Your task to perform on an android device: Go to Google maps Image 0: 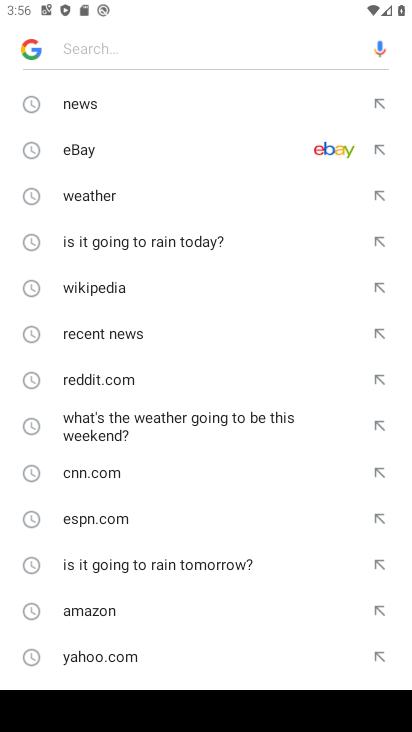
Step 0: press home button
Your task to perform on an android device: Go to Google maps Image 1: 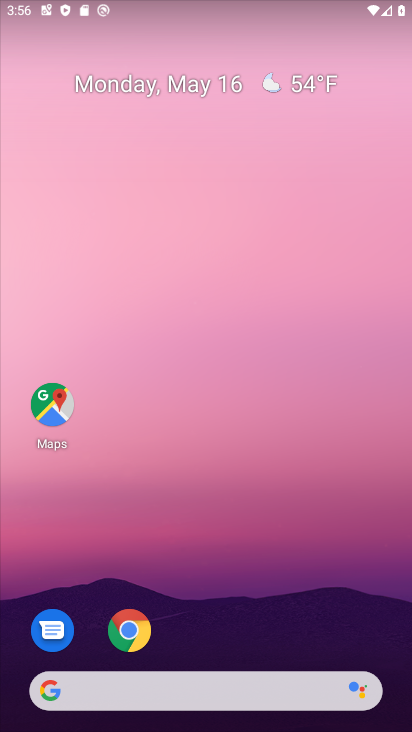
Step 1: click (49, 401)
Your task to perform on an android device: Go to Google maps Image 2: 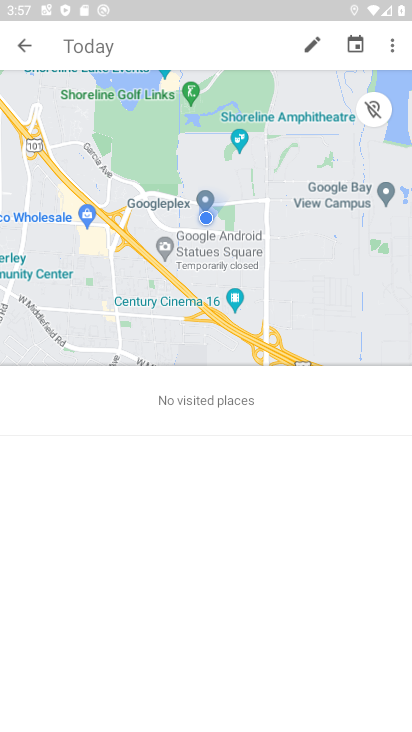
Step 2: click (23, 41)
Your task to perform on an android device: Go to Google maps Image 3: 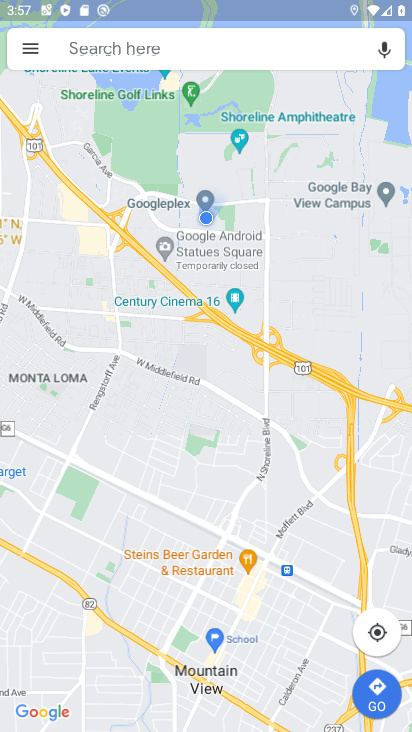
Step 3: task complete